Your task to perform on an android device: Search for pizza restaurants on Maps Image 0: 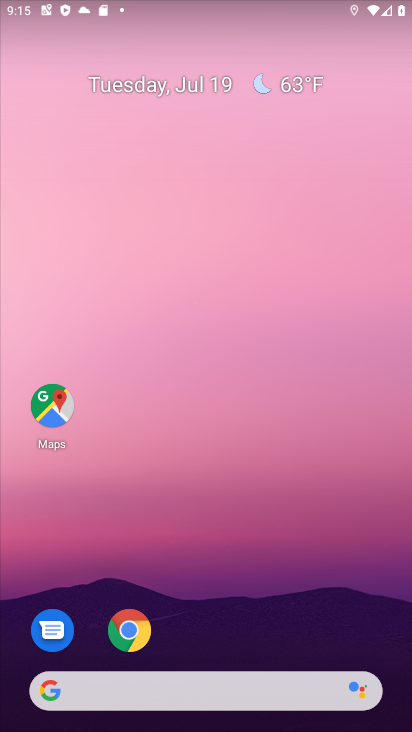
Step 0: click (50, 407)
Your task to perform on an android device: Search for pizza restaurants on Maps Image 1: 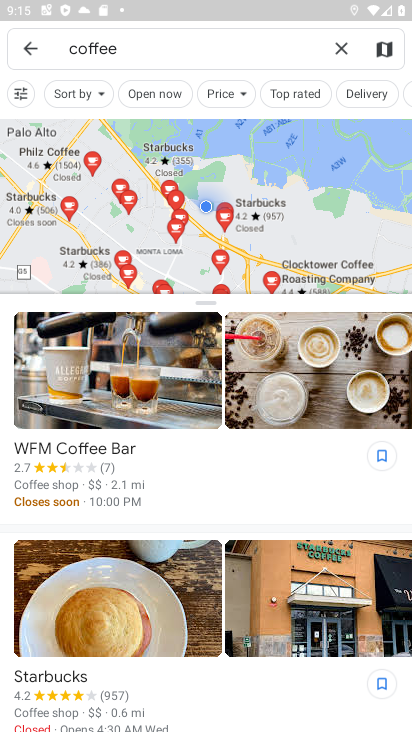
Step 1: click (341, 47)
Your task to perform on an android device: Search for pizza restaurants on Maps Image 2: 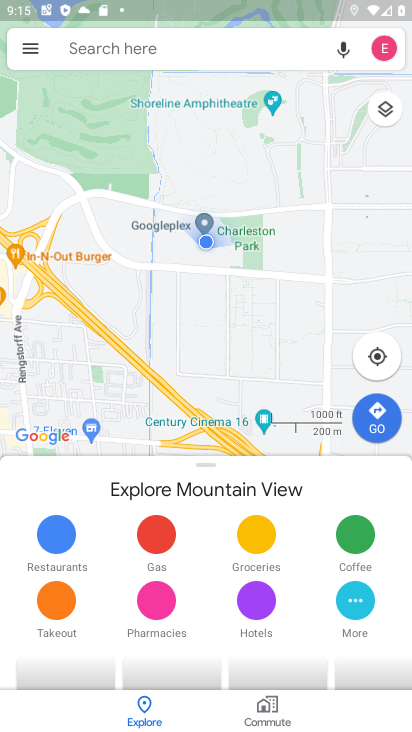
Step 2: click (263, 54)
Your task to perform on an android device: Search for pizza restaurants on Maps Image 3: 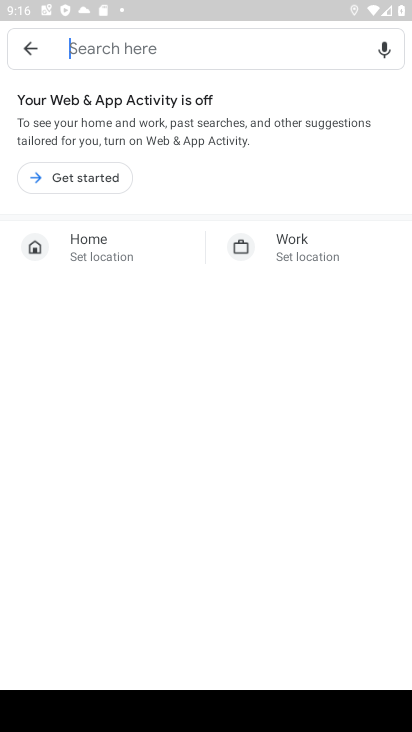
Step 3: type "pizza restaurants"
Your task to perform on an android device: Search for pizza restaurants on Maps Image 4: 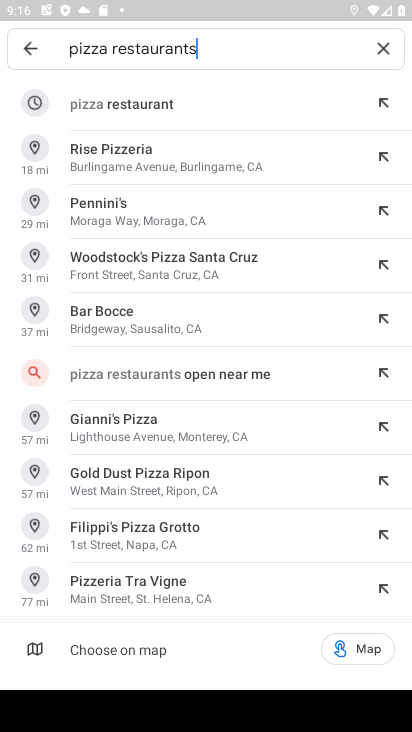
Step 4: click (107, 106)
Your task to perform on an android device: Search for pizza restaurants on Maps Image 5: 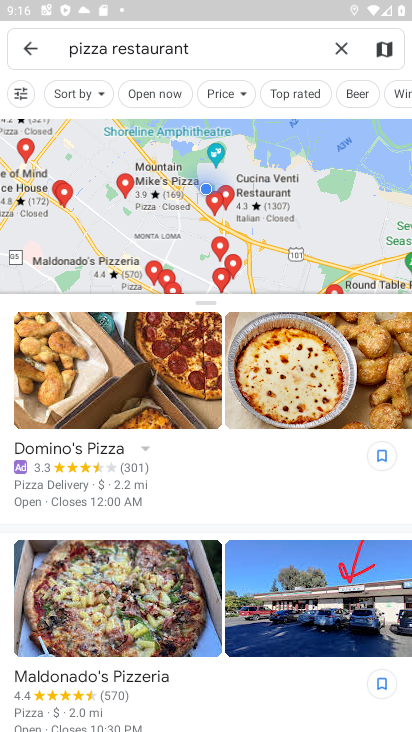
Step 5: task complete